Your task to perform on an android device: turn off improve location accuracy Image 0: 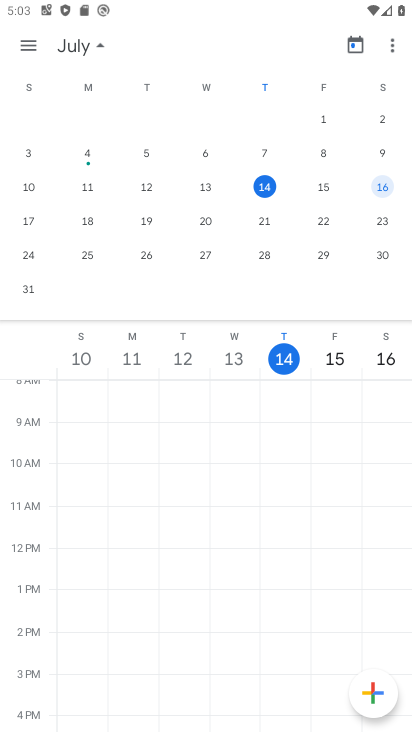
Step 0: press home button
Your task to perform on an android device: turn off improve location accuracy Image 1: 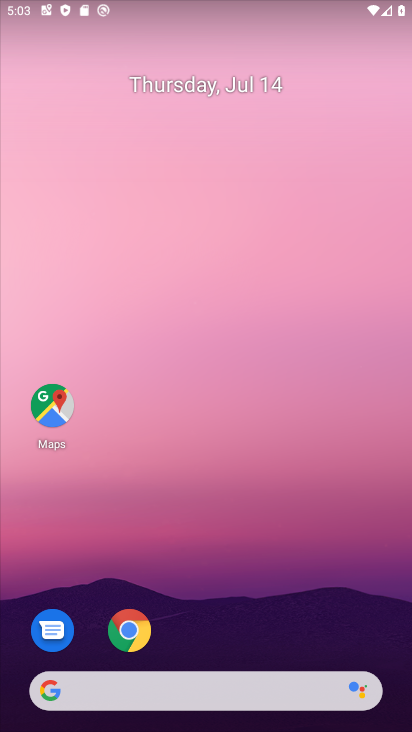
Step 1: drag from (190, 695) to (226, 190)
Your task to perform on an android device: turn off improve location accuracy Image 2: 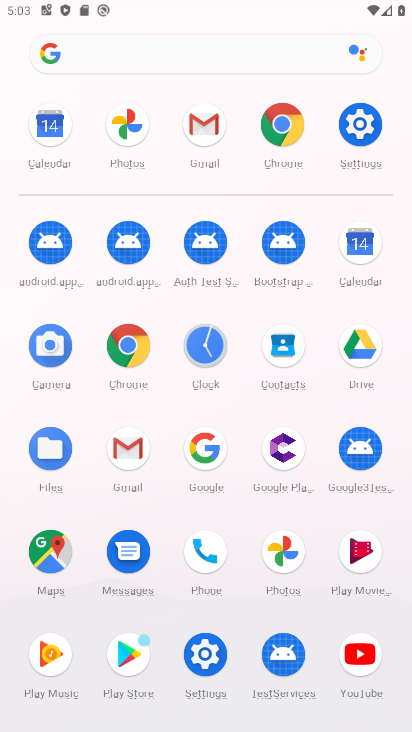
Step 2: click (210, 660)
Your task to perform on an android device: turn off improve location accuracy Image 3: 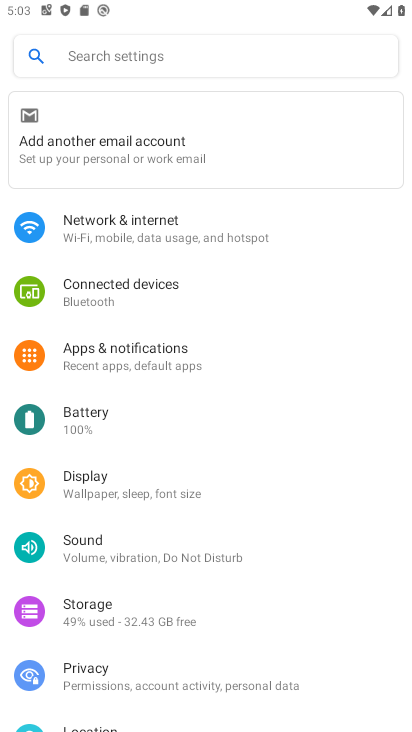
Step 3: drag from (153, 686) to (192, 393)
Your task to perform on an android device: turn off improve location accuracy Image 4: 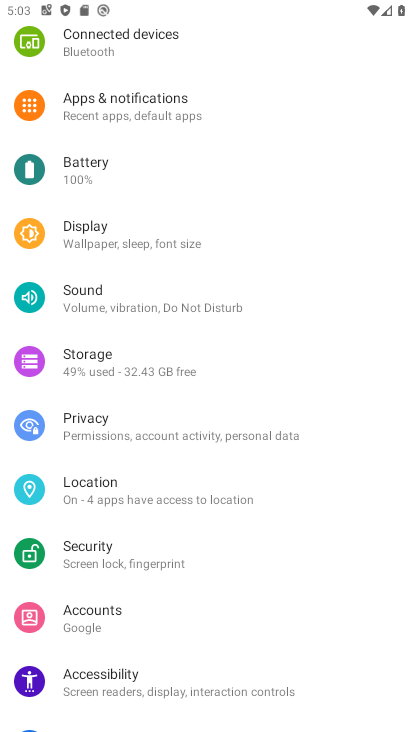
Step 4: click (129, 499)
Your task to perform on an android device: turn off improve location accuracy Image 5: 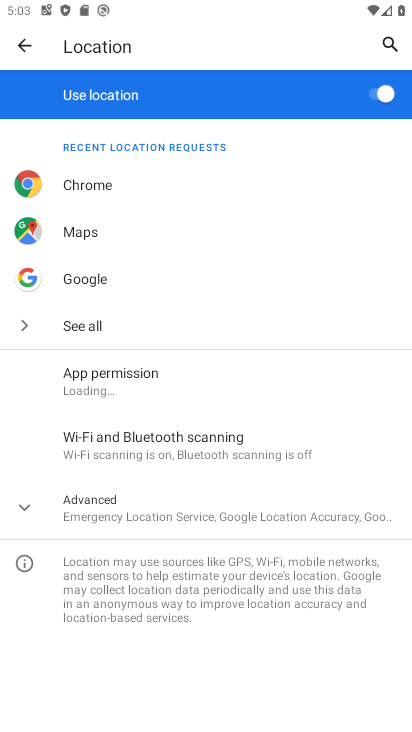
Step 5: click (253, 505)
Your task to perform on an android device: turn off improve location accuracy Image 6: 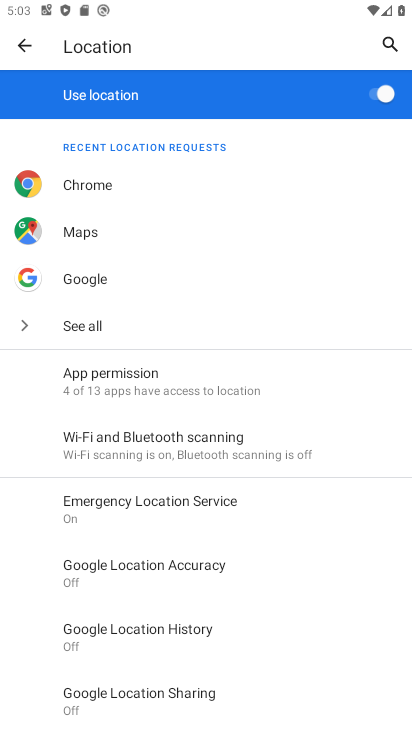
Step 6: click (206, 566)
Your task to perform on an android device: turn off improve location accuracy Image 7: 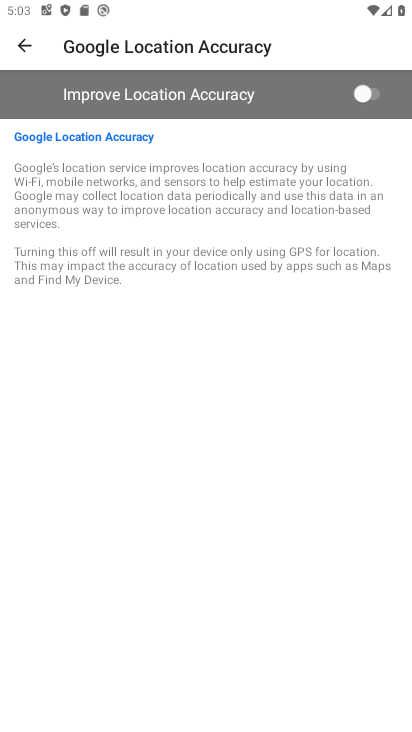
Step 7: task complete